Your task to perform on an android device: check the backup settings in the google photos Image 0: 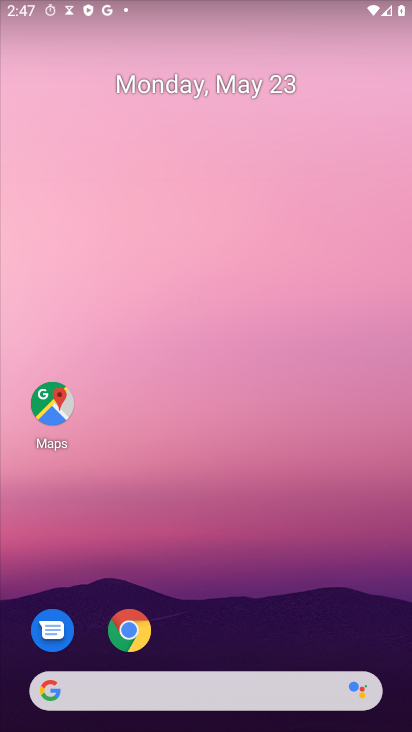
Step 0: drag from (336, 522) to (382, 89)
Your task to perform on an android device: check the backup settings in the google photos Image 1: 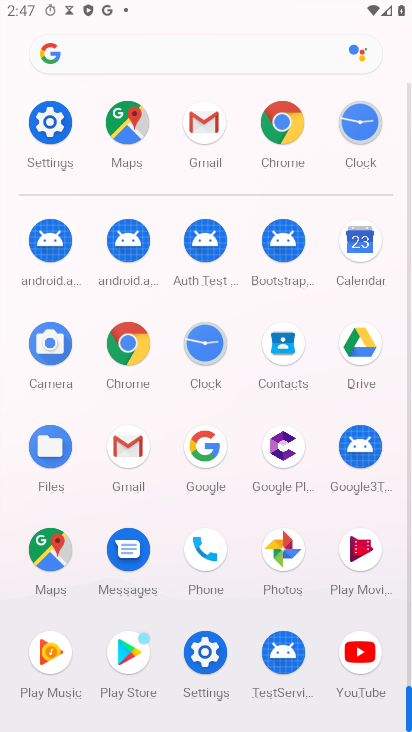
Step 1: click (280, 545)
Your task to perform on an android device: check the backup settings in the google photos Image 2: 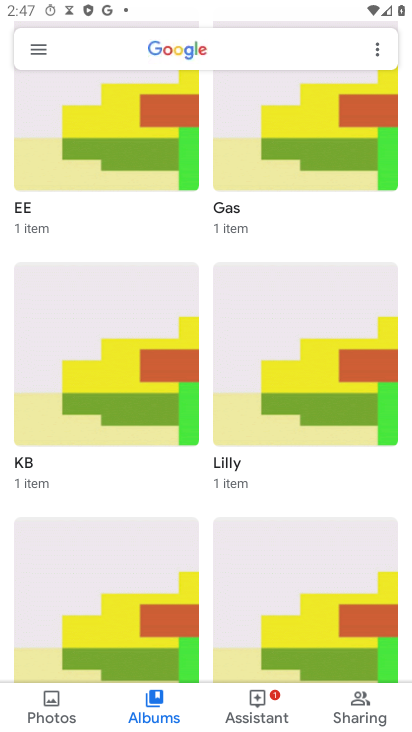
Step 2: drag from (164, 183) to (127, 627)
Your task to perform on an android device: check the backup settings in the google photos Image 3: 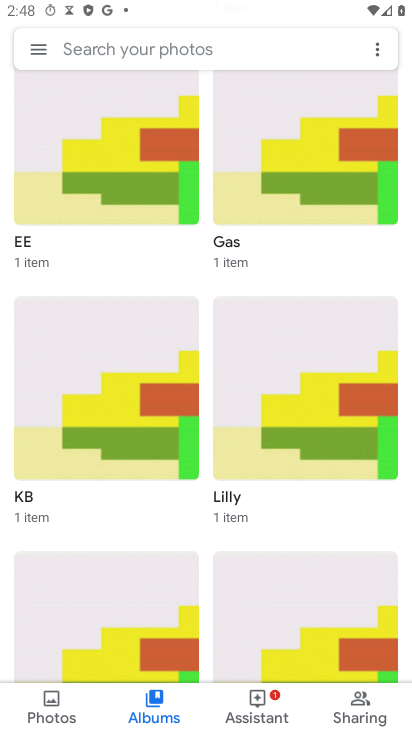
Step 3: click (23, 51)
Your task to perform on an android device: check the backup settings in the google photos Image 4: 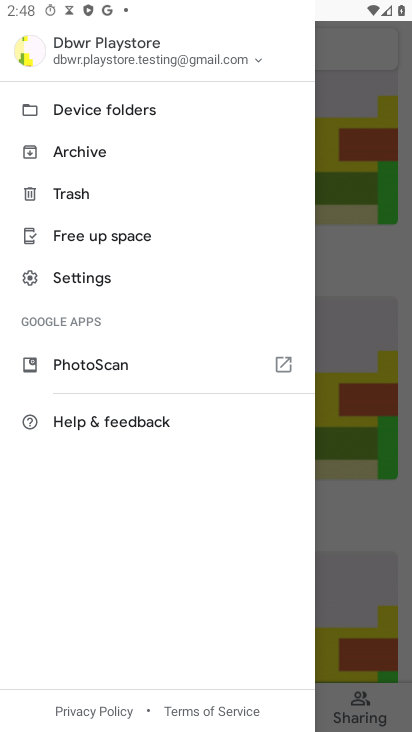
Step 4: click (61, 284)
Your task to perform on an android device: check the backup settings in the google photos Image 5: 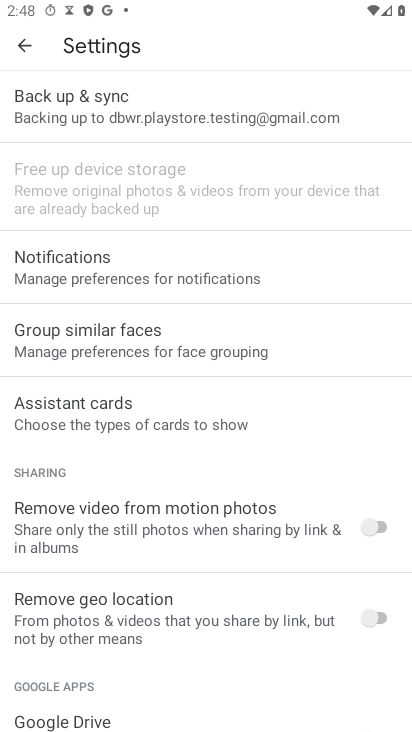
Step 5: click (134, 123)
Your task to perform on an android device: check the backup settings in the google photos Image 6: 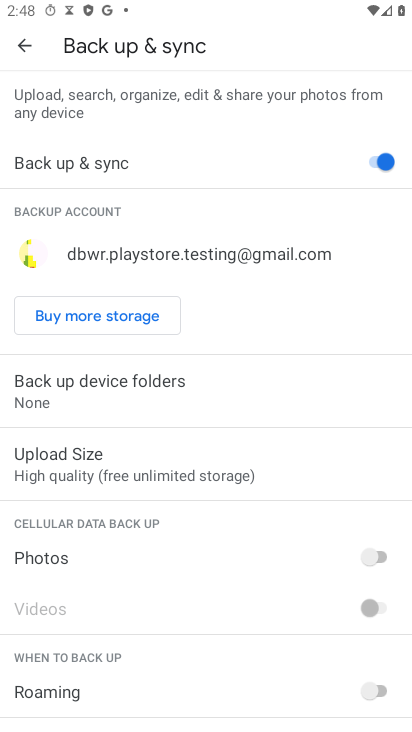
Step 6: task complete